Your task to perform on an android device: Open eBay Image 0: 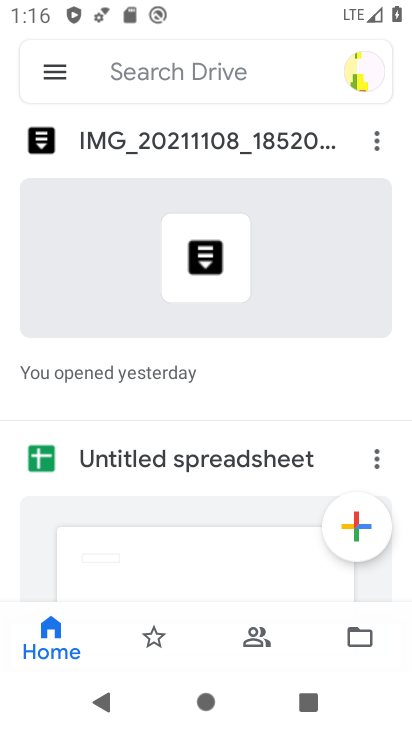
Step 0: press home button
Your task to perform on an android device: Open eBay Image 1: 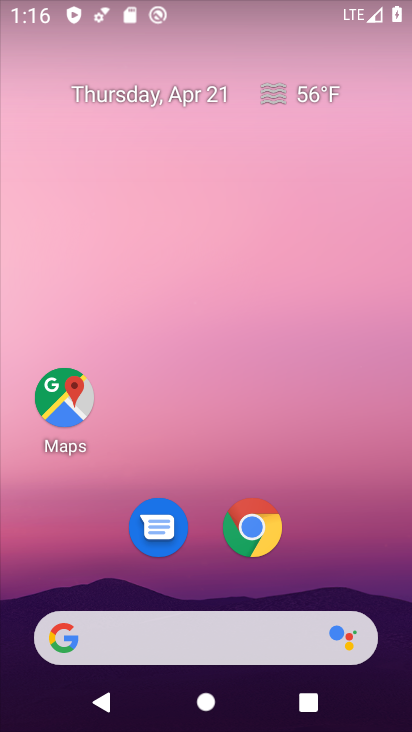
Step 1: click (243, 542)
Your task to perform on an android device: Open eBay Image 2: 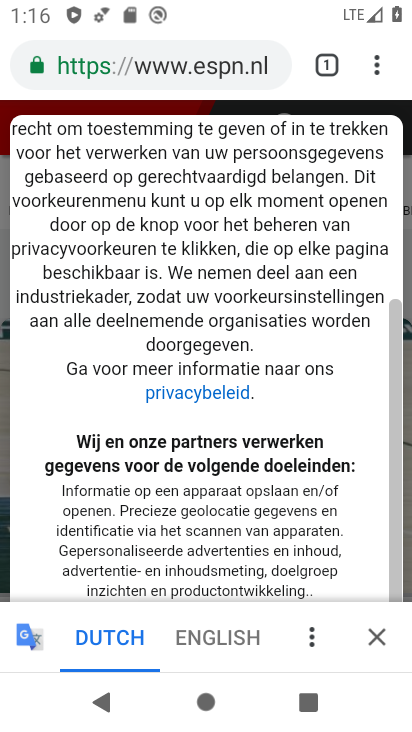
Step 2: drag from (190, 44) to (180, 218)
Your task to perform on an android device: Open eBay Image 3: 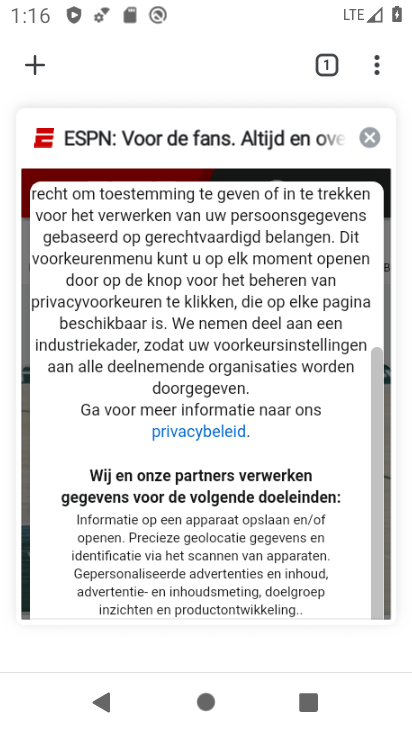
Step 3: click (36, 68)
Your task to perform on an android device: Open eBay Image 4: 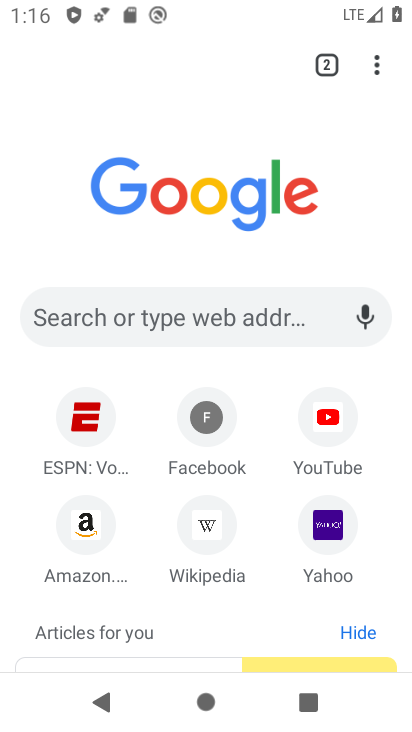
Step 4: click (223, 328)
Your task to perform on an android device: Open eBay Image 5: 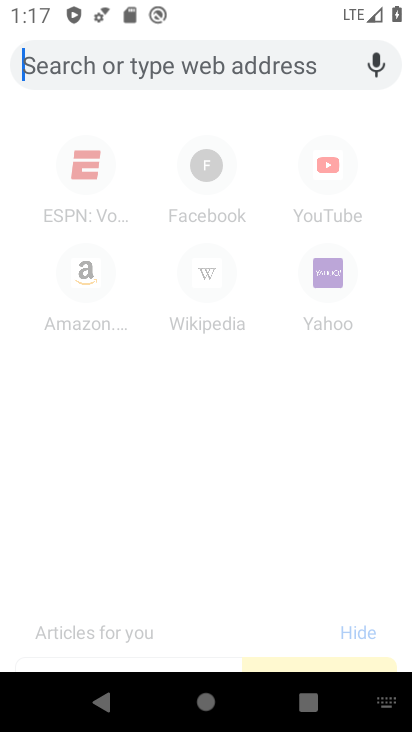
Step 5: type "eBay"
Your task to perform on an android device: Open eBay Image 6: 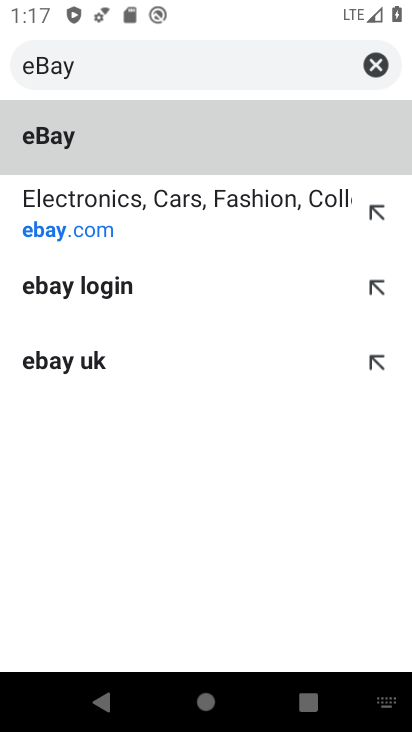
Step 6: click (70, 133)
Your task to perform on an android device: Open eBay Image 7: 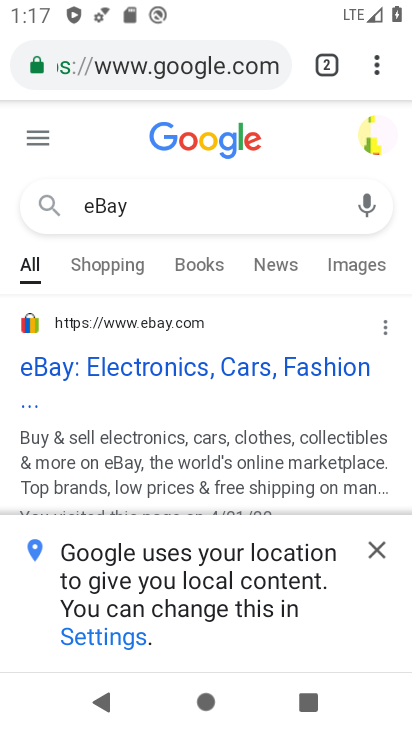
Step 7: click (180, 371)
Your task to perform on an android device: Open eBay Image 8: 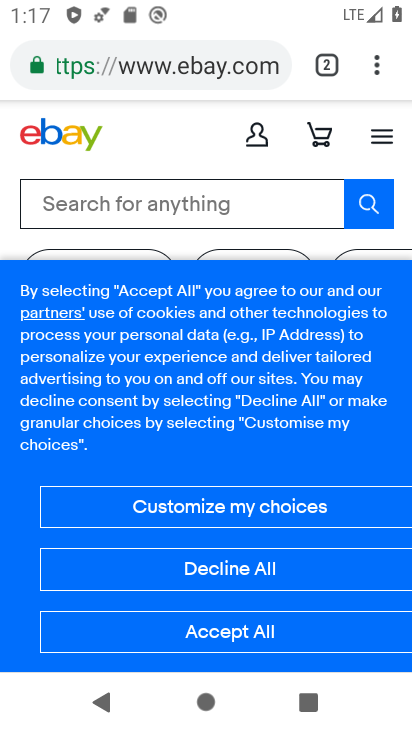
Step 8: task complete